Your task to perform on an android device: turn on sleep mode Image 0: 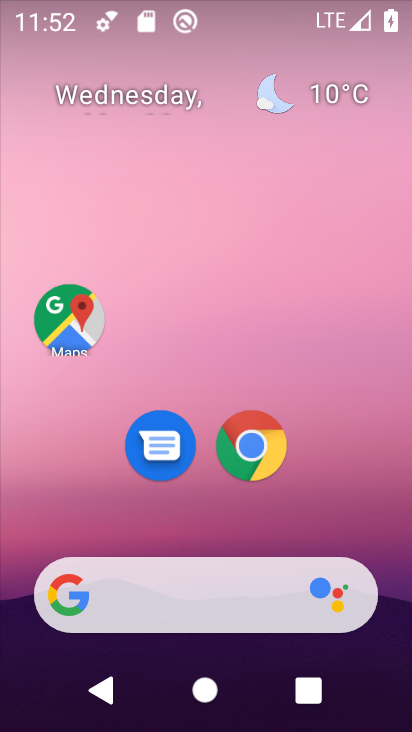
Step 0: drag from (188, 433) to (250, 35)
Your task to perform on an android device: turn on sleep mode Image 1: 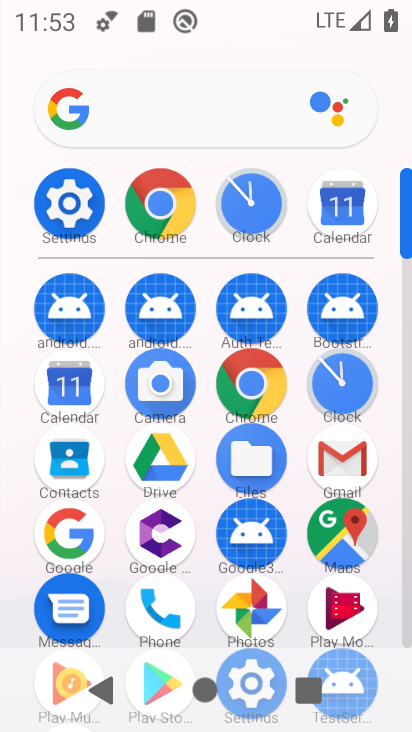
Step 1: click (61, 193)
Your task to perform on an android device: turn on sleep mode Image 2: 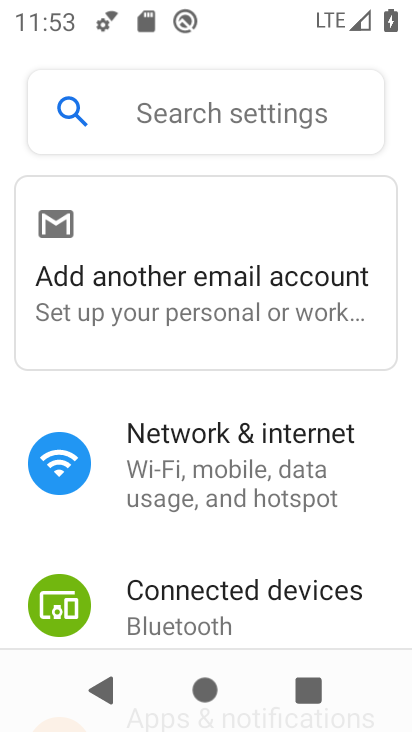
Step 2: click (231, 100)
Your task to perform on an android device: turn on sleep mode Image 3: 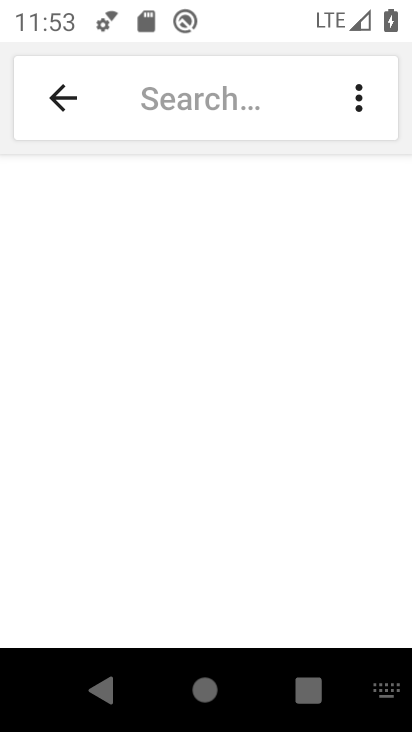
Step 3: type "sleep mode"
Your task to perform on an android device: turn on sleep mode Image 4: 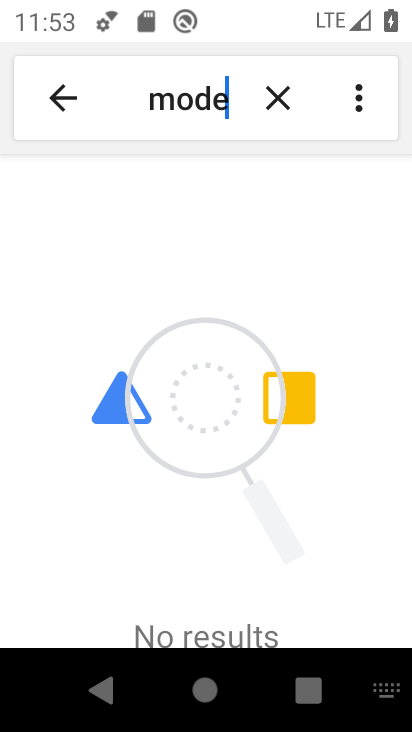
Step 4: task complete